Your task to perform on an android device: Go to sound settings Image 0: 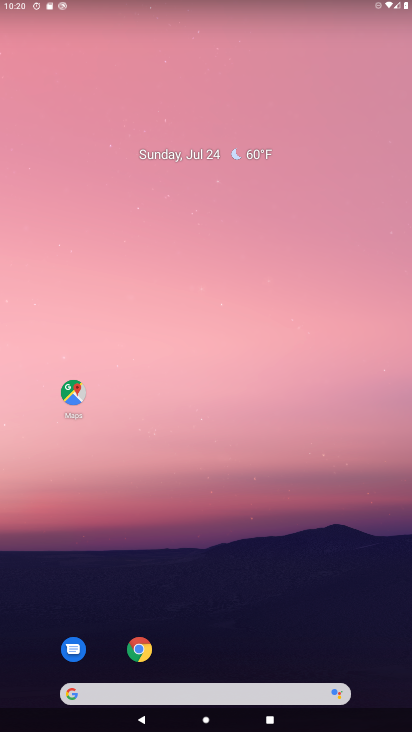
Step 0: drag from (253, 475) to (221, 84)
Your task to perform on an android device: Go to sound settings Image 1: 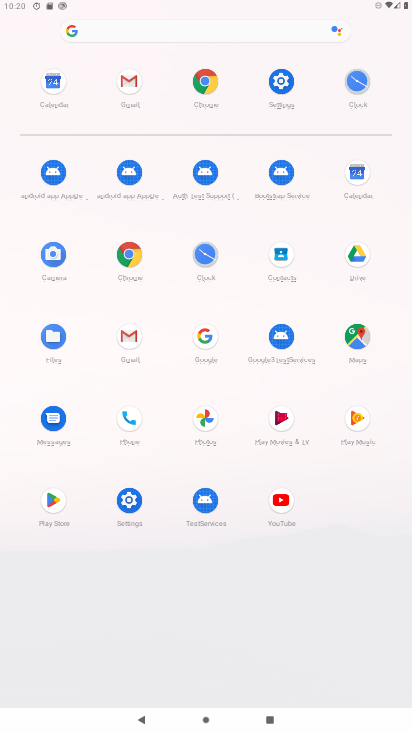
Step 1: click (286, 85)
Your task to perform on an android device: Go to sound settings Image 2: 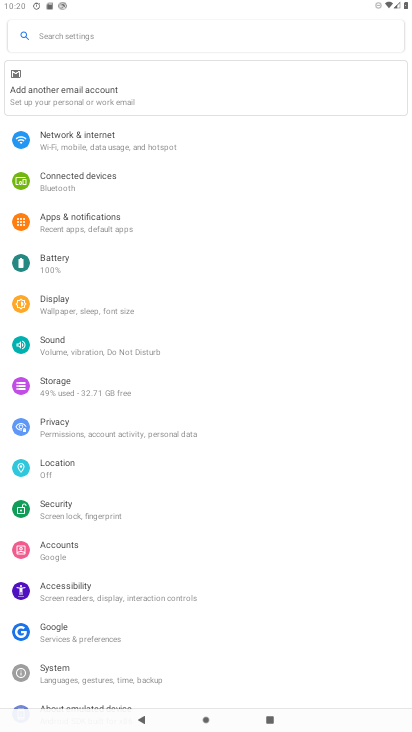
Step 2: click (98, 340)
Your task to perform on an android device: Go to sound settings Image 3: 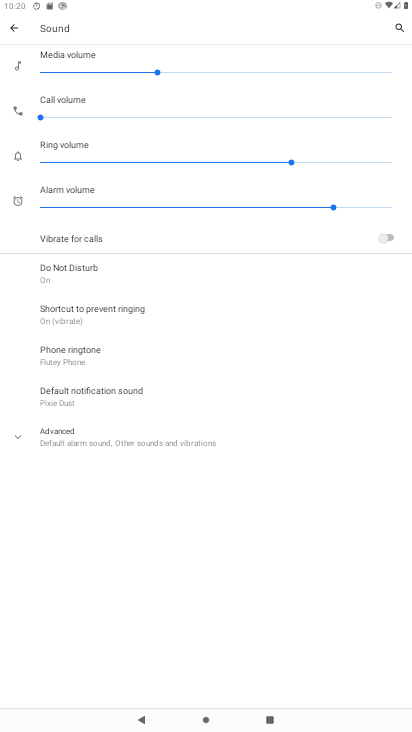
Step 3: task complete